Your task to perform on an android device: turn off picture-in-picture Image 0: 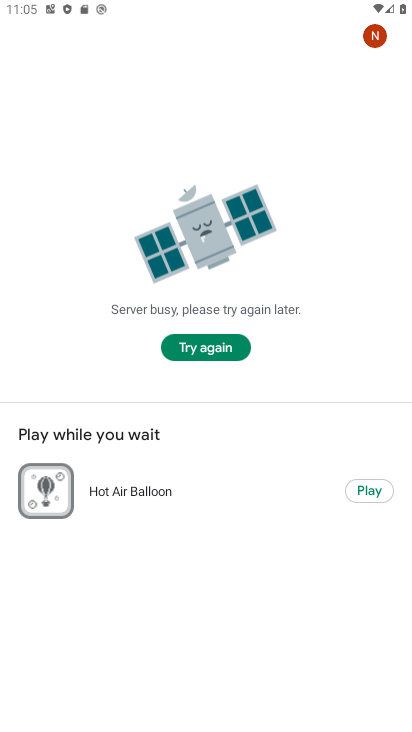
Step 0: press home button
Your task to perform on an android device: turn off picture-in-picture Image 1: 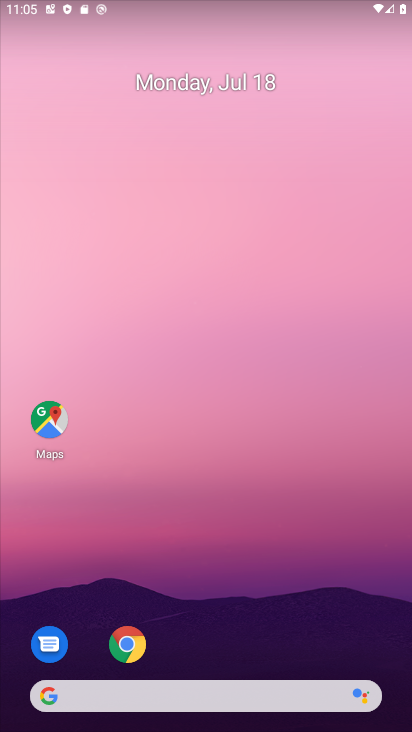
Step 1: drag from (227, 723) to (220, 237)
Your task to perform on an android device: turn off picture-in-picture Image 2: 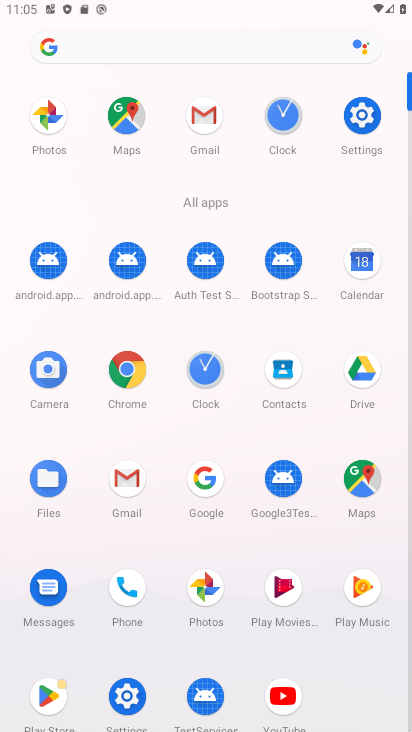
Step 2: click (364, 116)
Your task to perform on an android device: turn off picture-in-picture Image 3: 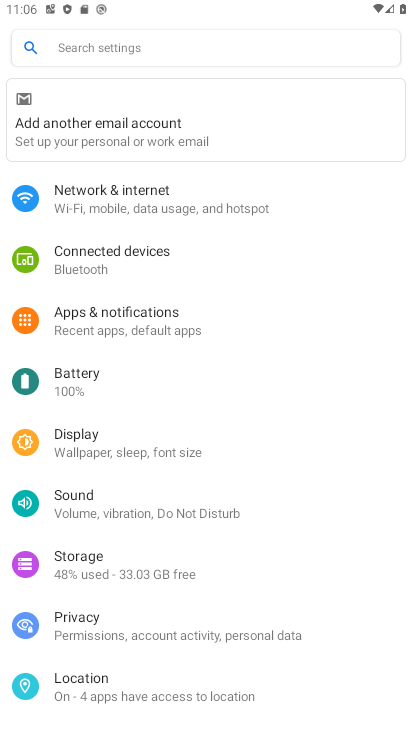
Step 3: click (122, 319)
Your task to perform on an android device: turn off picture-in-picture Image 4: 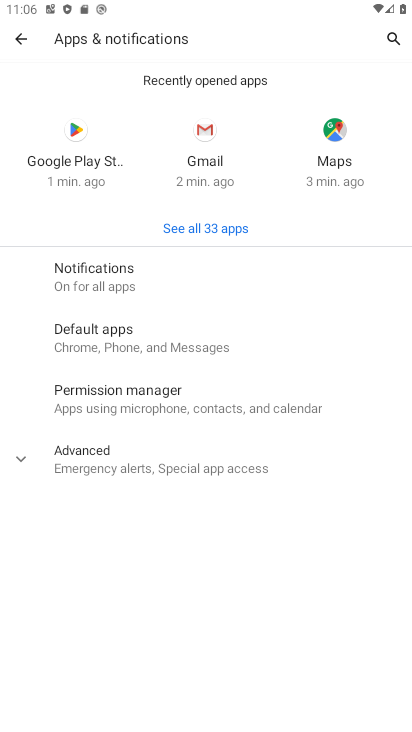
Step 4: click (87, 454)
Your task to perform on an android device: turn off picture-in-picture Image 5: 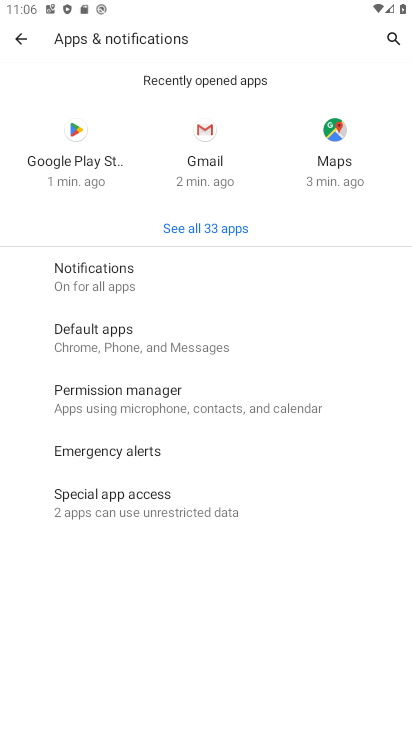
Step 5: click (96, 502)
Your task to perform on an android device: turn off picture-in-picture Image 6: 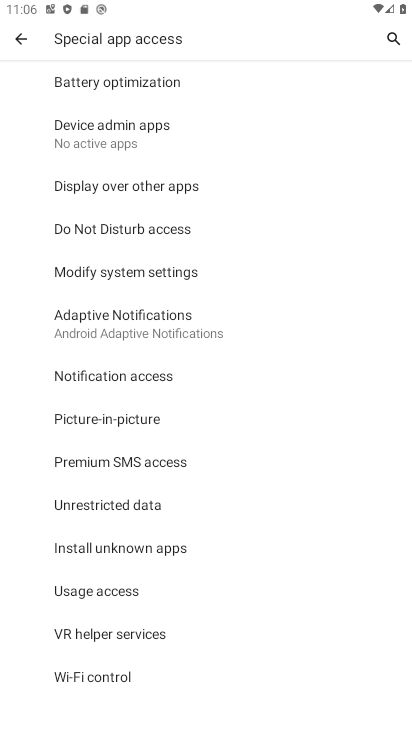
Step 6: click (73, 422)
Your task to perform on an android device: turn off picture-in-picture Image 7: 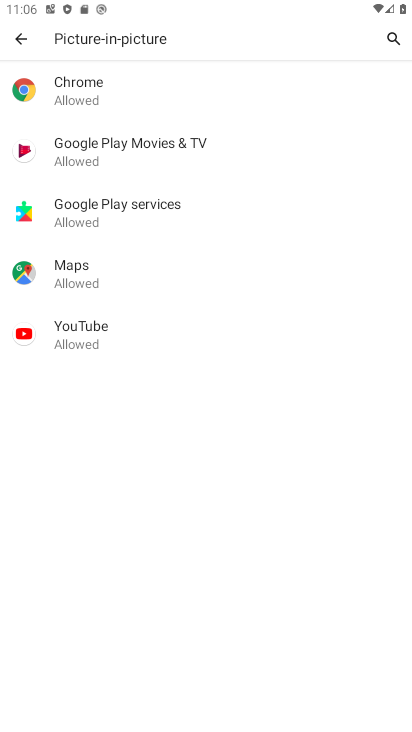
Step 7: click (76, 325)
Your task to perform on an android device: turn off picture-in-picture Image 8: 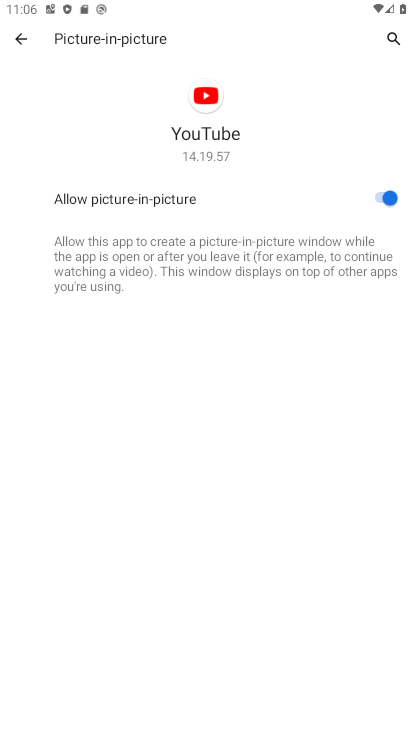
Step 8: click (380, 198)
Your task to perform on an android device: turn off picture-in-picture Image 9: 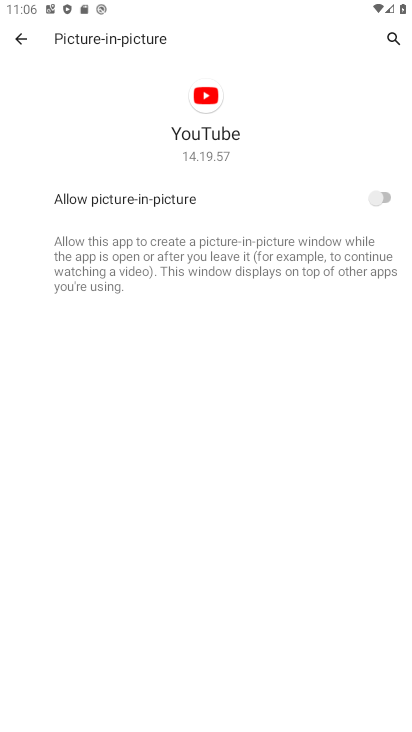
Step 9: task complete